Your task to perform on an android device: turn off wifi Image 0: 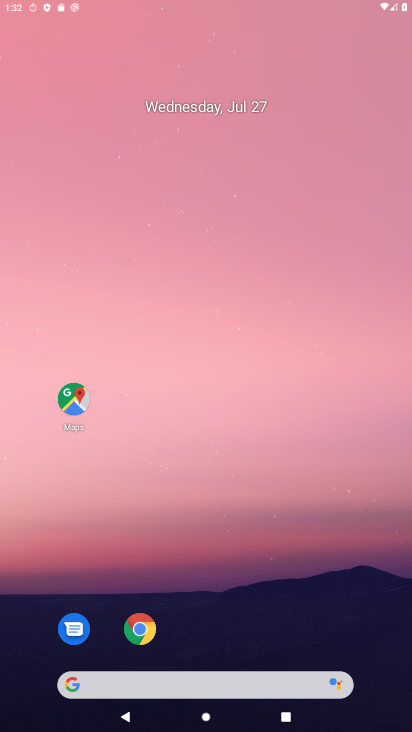
Step 0: press home button
Your task to perform on an android device: turn off wifi Image 1: 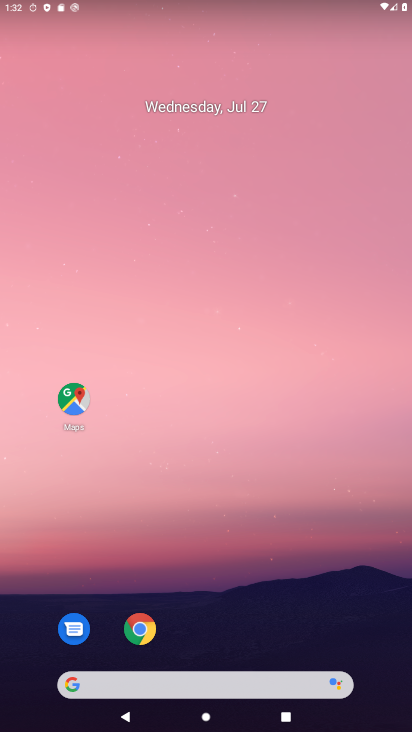
Step 1: drag from (196, 52) to (207, 437)
Your task to perform on an android device: turn off wifi Image 2: 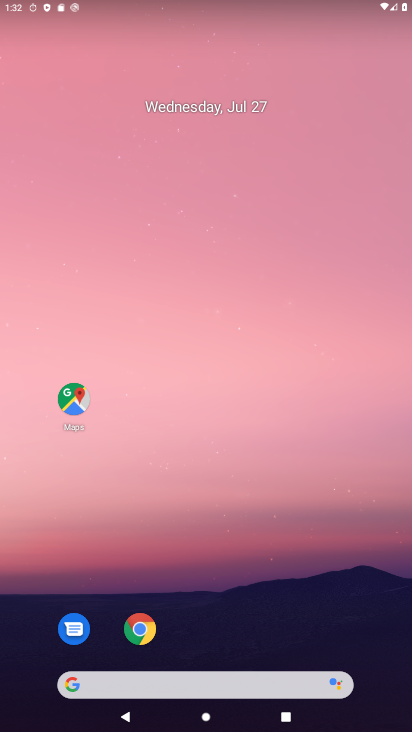
Step 2: drag from (210, 5) to (228, 609)
Your task to perform on an android device: turn off wifi Image 3: 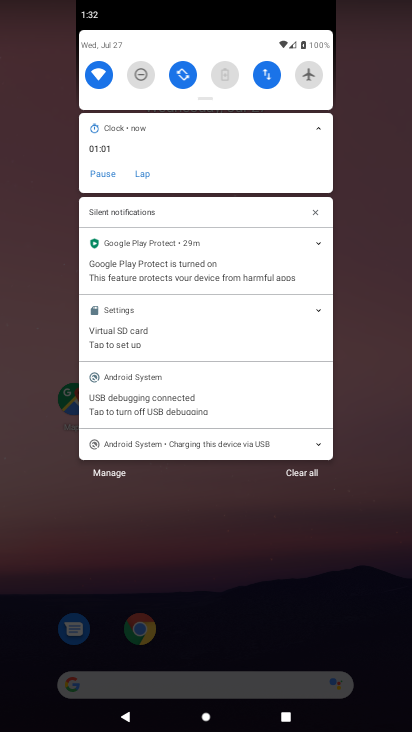
Step 3: click (100, 73)
Your task to perform on an android device: turn off wifi Image 4: 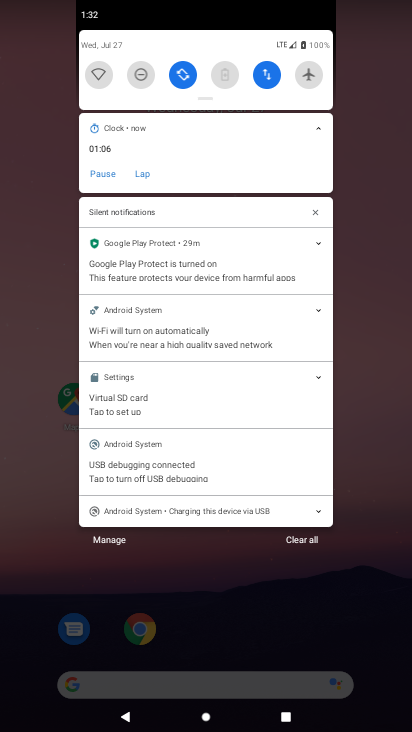
Step 4: task complete